Your task to perform on an android device: open chrome and create a bookmark for the current page Image 0: 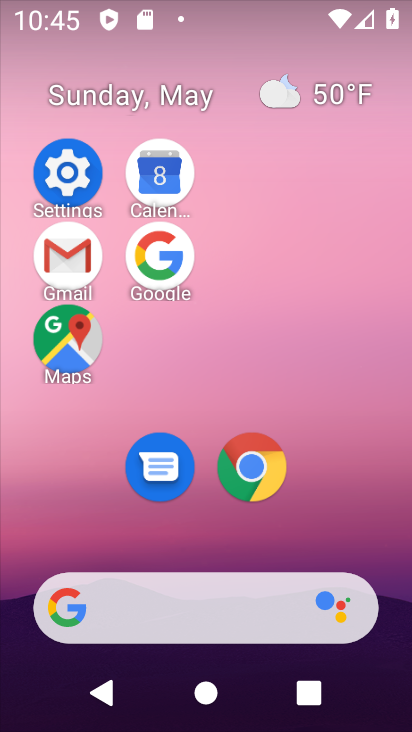
Step 0: click (246, 462)
Your task to perform on an android device: open chrome and create a bookmark for the current page Image 1: 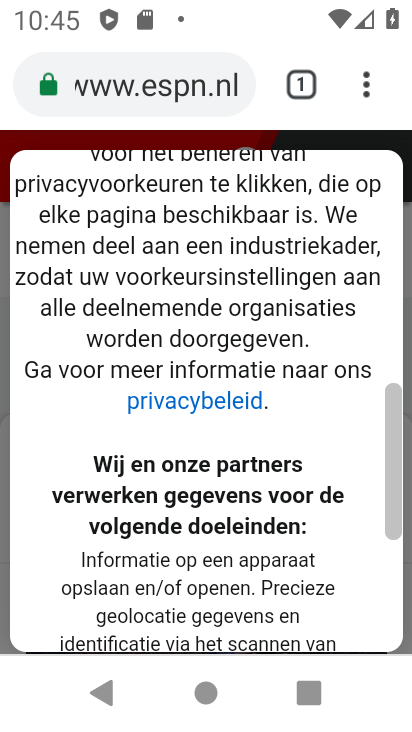
Step 1: click (362, 85)
Your task to perform on an android device: open chrome and create a bookmark for the current page Image 2: 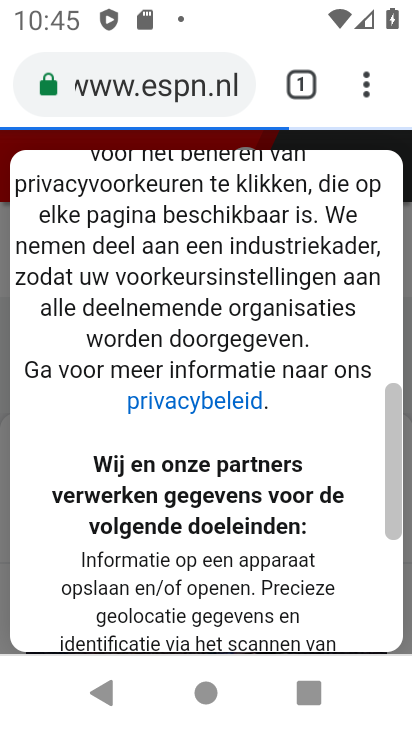
Step 2: click (363, 90)
Your task to perform on an android device: open chrome and create a bookmark for the current page Image 3: 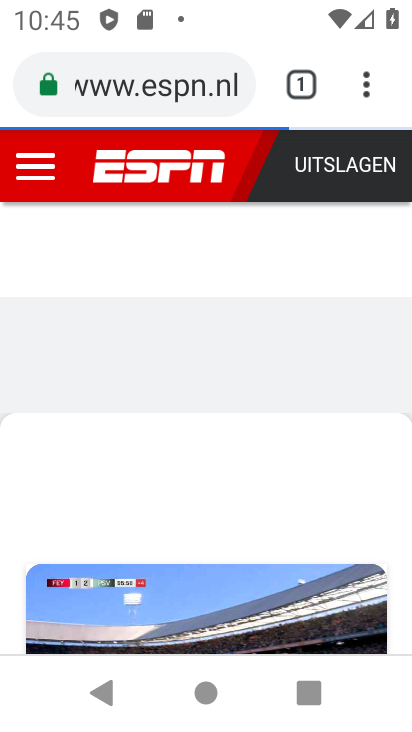
Step 3: click (363, 90)
Your task to perform on an android device: open chrome and create a bookmark for the current page Image 4: 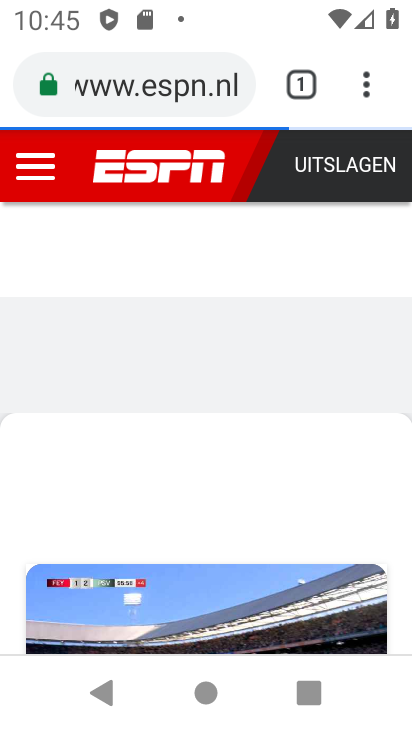
Step 4: click (363, 90)
Your task to perform on an android device: open chrome and create a bookmark for the current page Image 5: 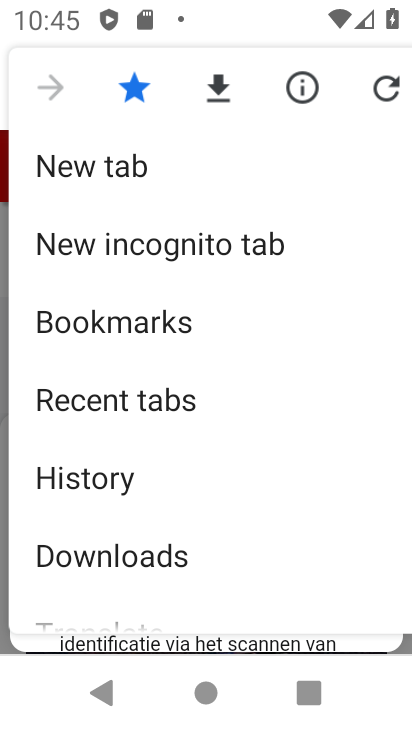
Step 5: click (373, 94)
Your task to perform on an android device: open chrome and create a bookmark for the current page Image 6: 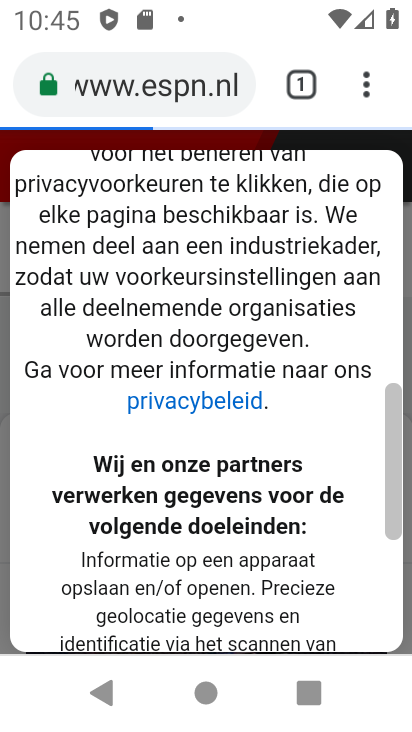
Step 6: click (307, 94)
Your task to perform on an android device: open chrome and create a bookmark for the current page Image 7: 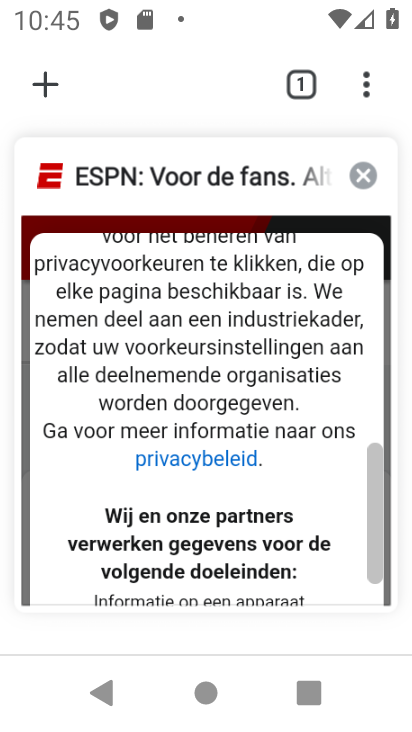
Step 7: task complete